Your task to perform on an android device: turn off airplane mode Image 0: 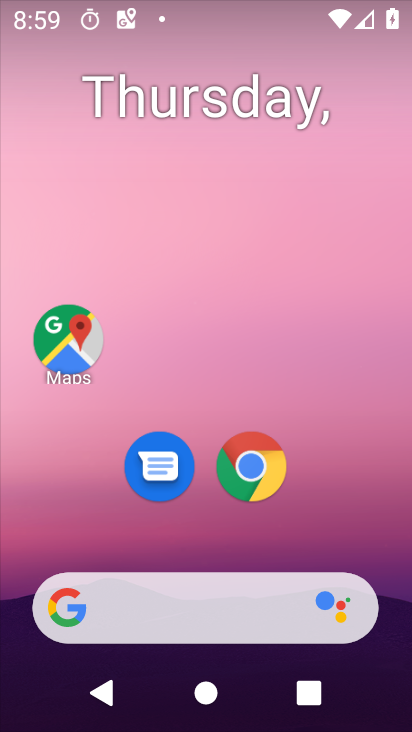
Step 0: drag from (249, 3) to (249, 728)
Your task to perform on an android device: turn off airplane mode Image 1: 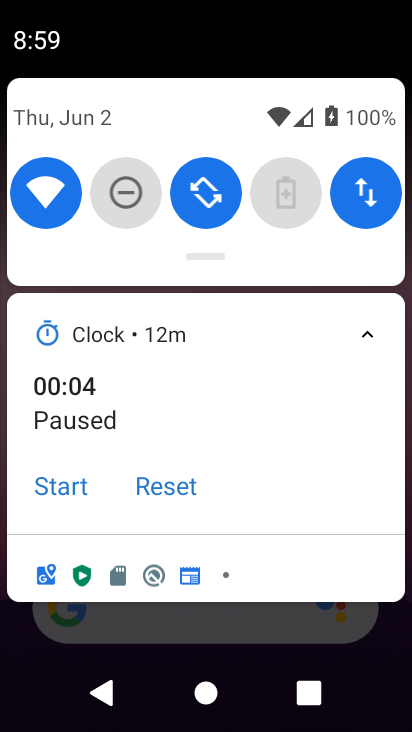
Step 1: drag from (209, 268) to (189, 724)
Your task to perform on an android device: turn off airplane mode Image 2: 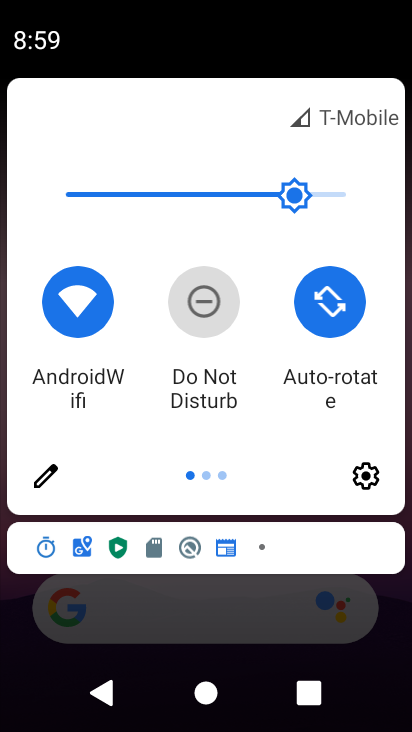
Step 2: drag from (318, 444) to (350, 717)
Your task to perform on an android device: turn off airplane mode Image 3: 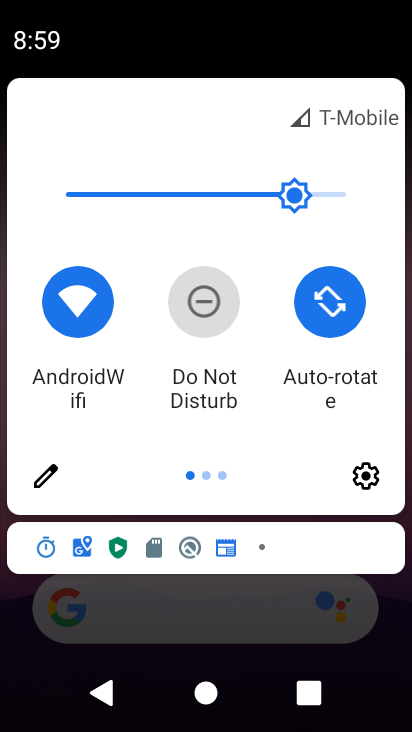
Step 3: drag from (314, 438) to (0, 377)
Your task to perform on an android device: turn off airplane mode Image 4: 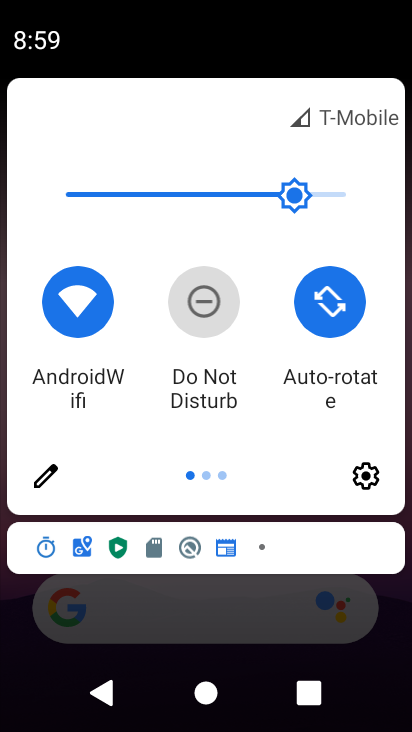
Step 4: drag from (283, 418) to (13, 389)
Your task to perform on an android device: turn off airplane mode Image 5: 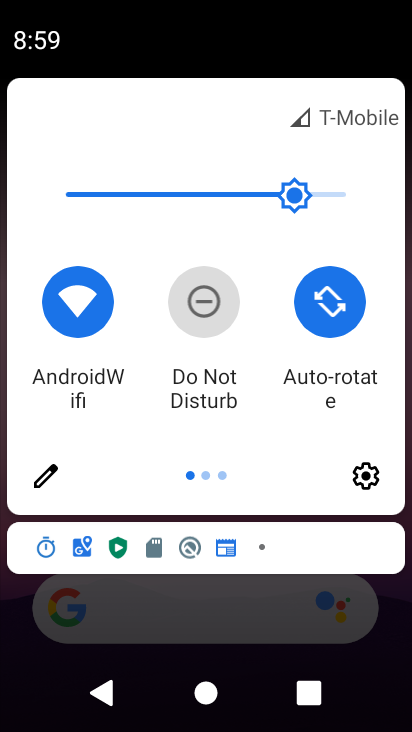
Step 5: drag from (297, 429) to (2, 412)
Your task to perform on an android device: turn off airplane mode Image 6: 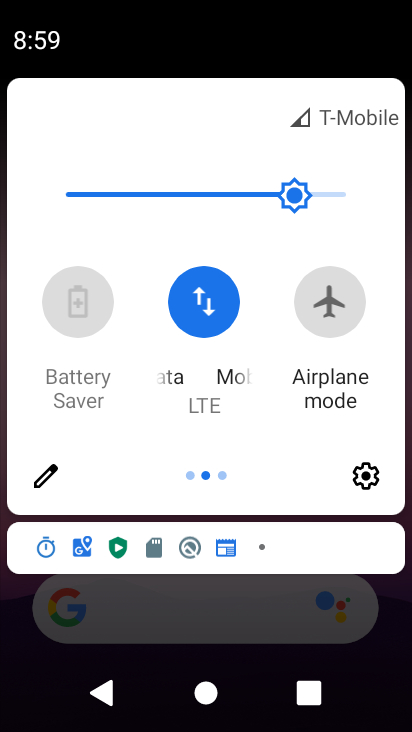
Step 6: click (333, 291)
Your task to perform on an android device: turn off airplane mode Image 7: 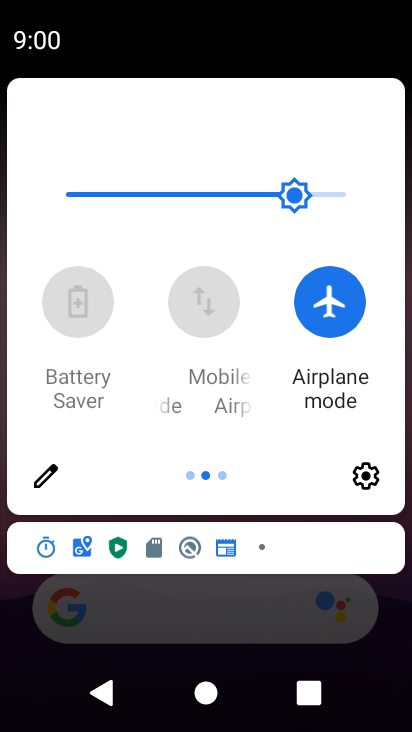
Step 7: task complete